Your task to perform on an android device: find photos in the google photos app Image 0: 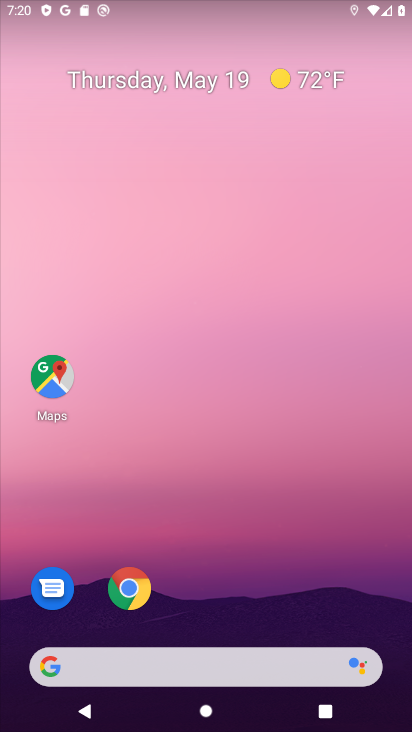
Step 0: drag from (335, 609) to (257, 72)
Your task to perform on an android device: find photos in the google photos app Image 1: 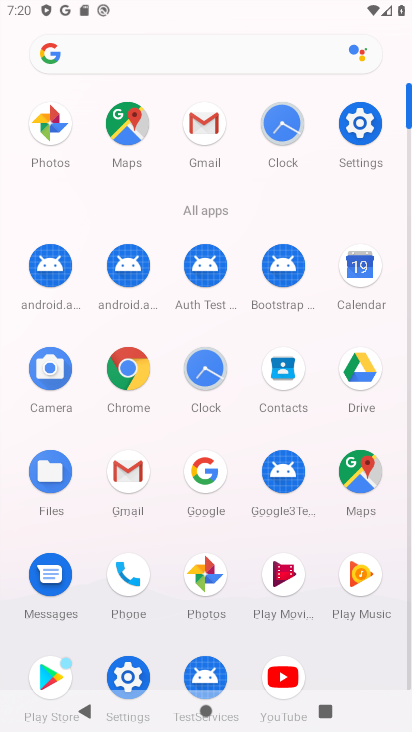
Step 1: click (202, 577)
Your task to perform on an android device: find photos in the google photos app Image 2: 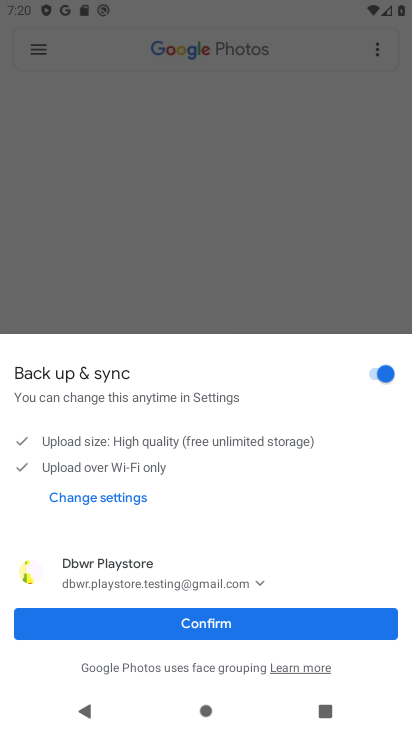
Step 2: click (175, 633)
Your task to perform on an android device: find photos in the google photos app Image 3: 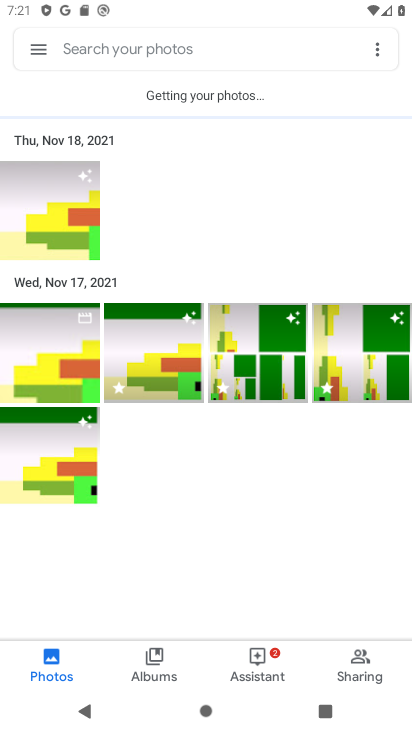
Step 3: task complete